Your task to perform on an android device: Search for Italian restaurants on Maps Image 0: 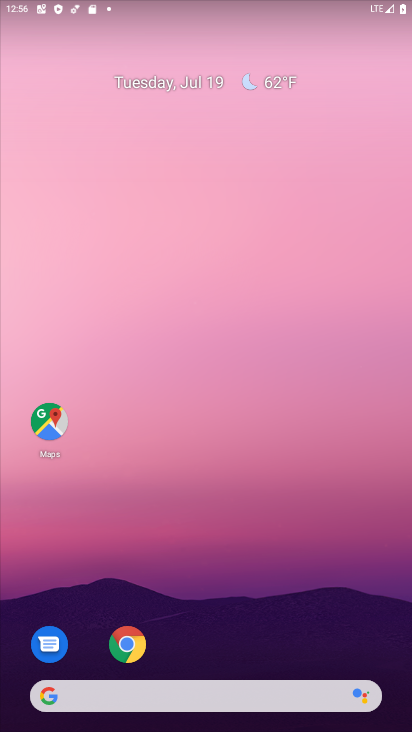
Step 0: click (48, 432)
Your task to perform on an android device: Search for Italian restaurants on Maps Image 1: 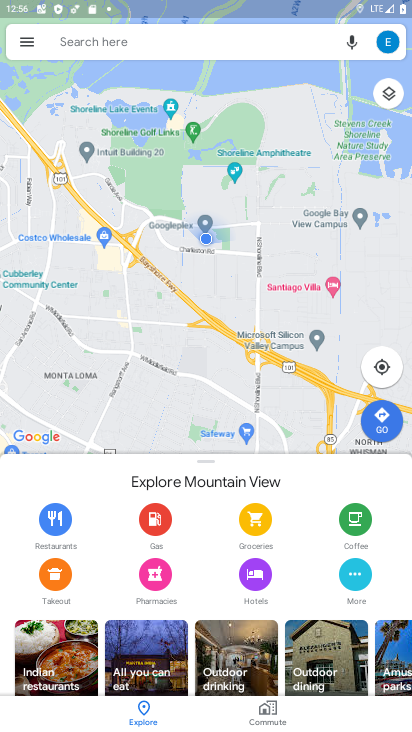
Step 1: click (101, 35)
Your task to perform on an android device: Search for Italian restaurants on Maps Image 2: 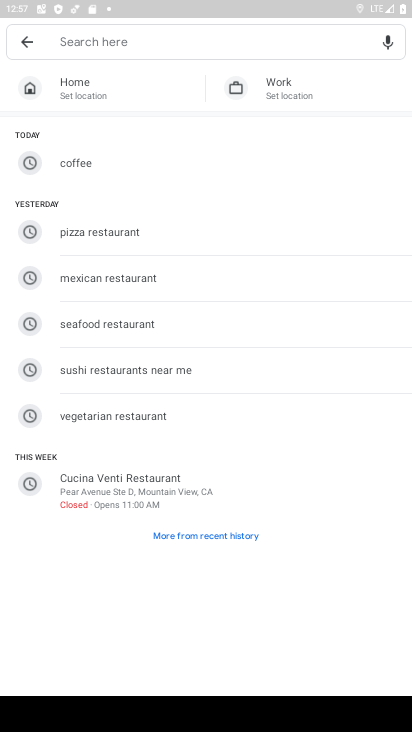
Step 2: type "italian restaurants"
Your task to perform on an android device: Search for Italian restaurants on Maps Image 3: 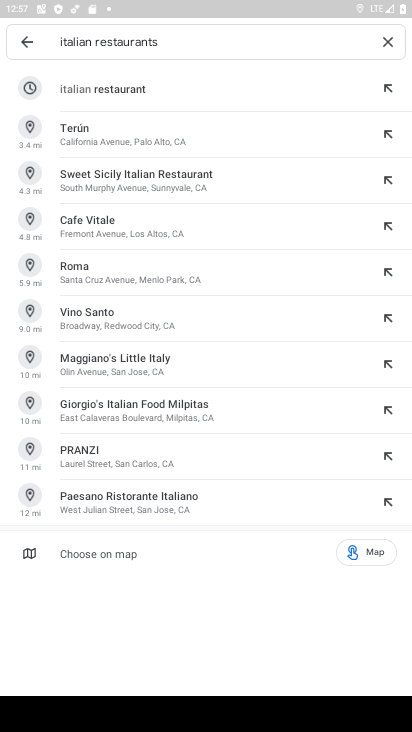
Step 3: click (111, 89)
Your task to perform on an android device: Search for Italian restaurants on Maps Image 4: 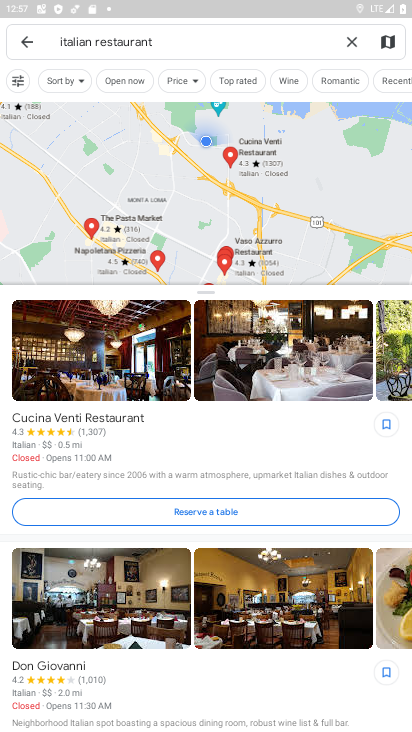
Step 4: task complete